Your task to perform on an android device: toggle notification dots Image 0: 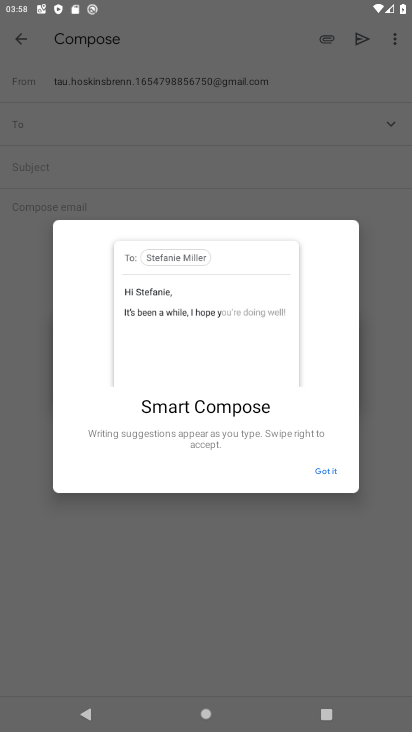
Step 0: click (321, 465)
Your task to perform on an android device: toggle notification dots Image 1: 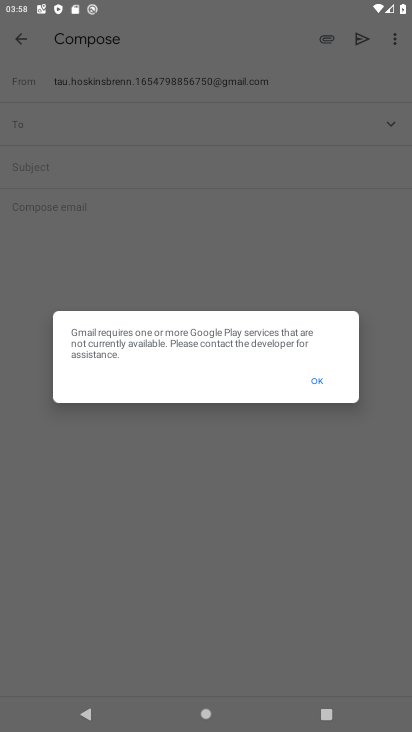
Step 1: click (318, 386)
Your task to perform on an android device: toggle notification dots Image 2: 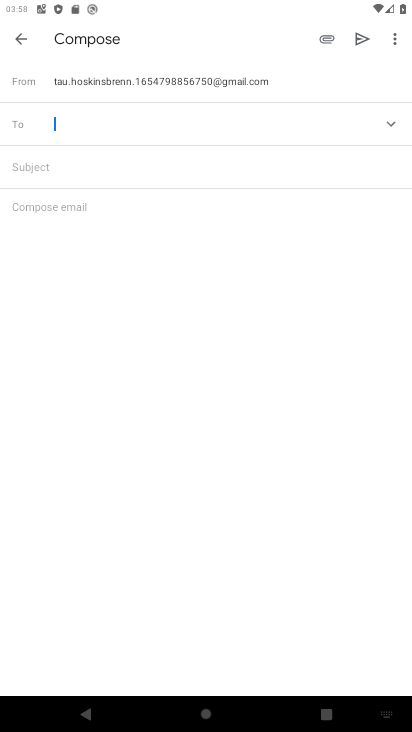
Step 2: click (12, 35)
Your task to perform on an android device: toggle notification dots Image 3: 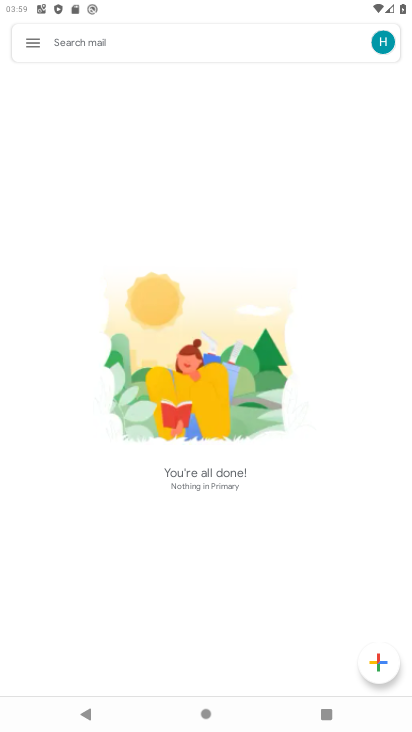
Step 3: press home button
Your task to perform on an android device: toggle notification dots Image 4: 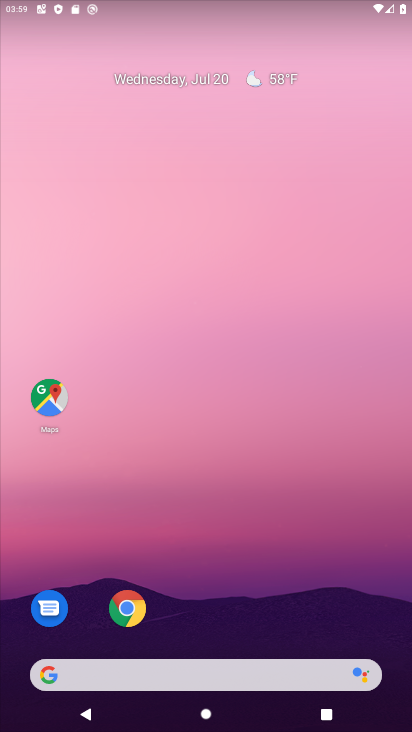
Step 4: drag from (291, 613) to (276, 36)
Your task to perform on an android device: toggle notification dots Image 5: 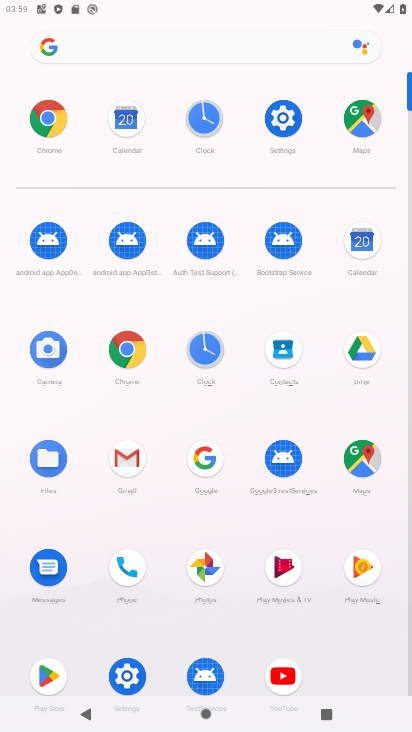
Step 5: click (287, 121)
Your task to perform on an android device: toggle notification dots Image 6: 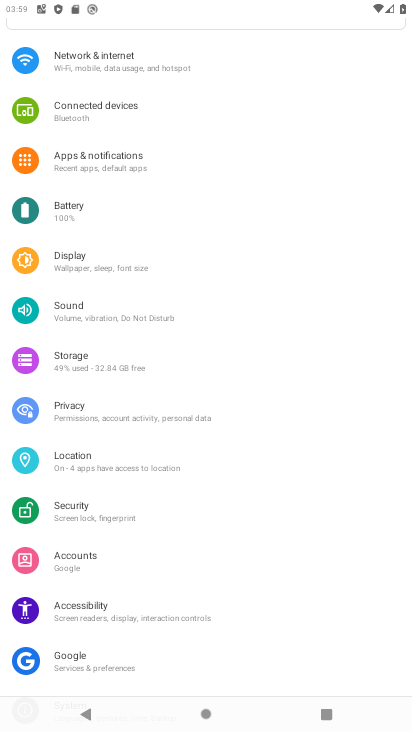
Step 6: click (121, 156)
Your task to perform on an android device: toggle notification dots Image 7: 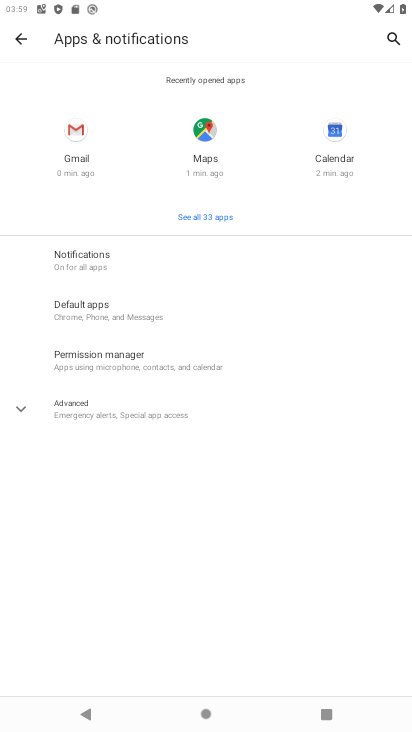
Step 7: click (148, 413)
Your task to perform on an android device: toggle notification dots Image 8: 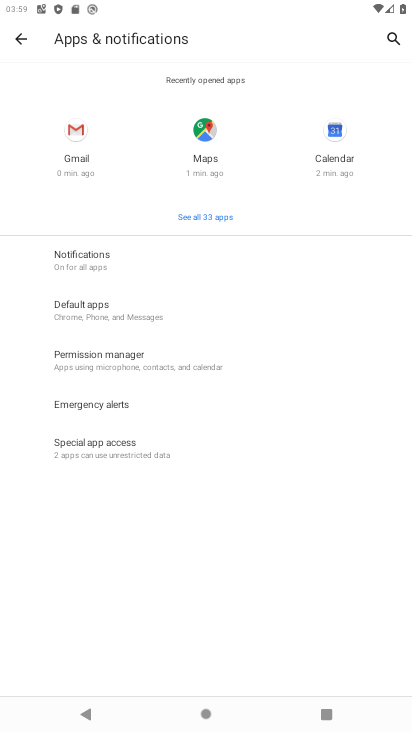
Step 8: click (222, 277)
Your task to perform on an android device: toggle notification dots Image 9: 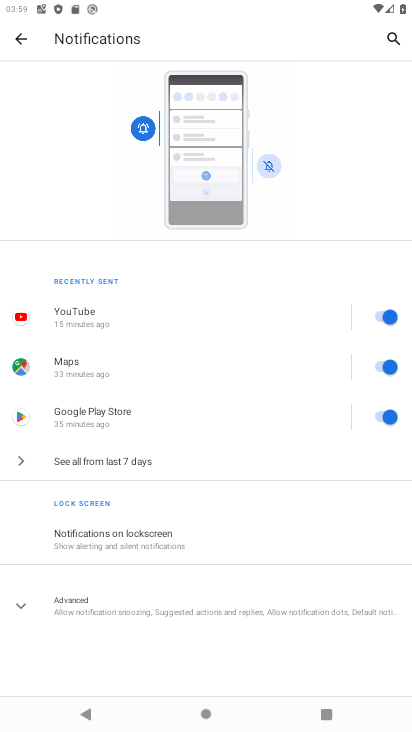
Step 9: click (193, 589)
Your task to perform on an android device: toggle notification dots Image 10: 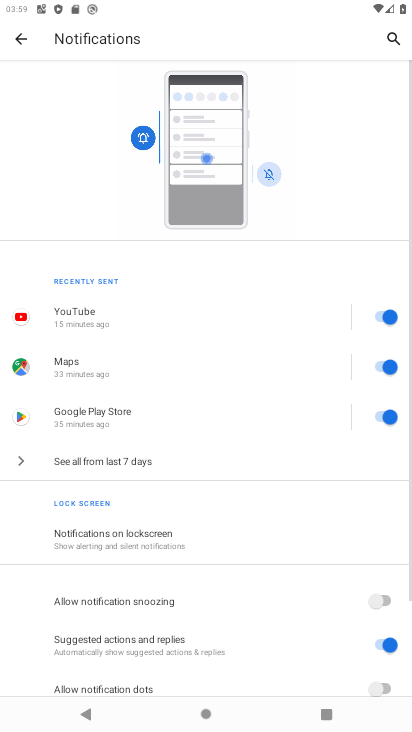
Step 10: click (385, 679)
Your task to perform on an android device: toggle notification dots Image 11: 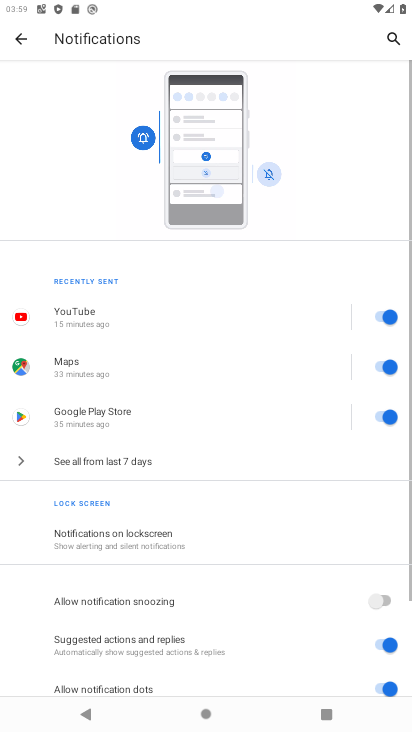
Step 11: task complete